Your task to perform on an android device: Show me recent news Image 0: 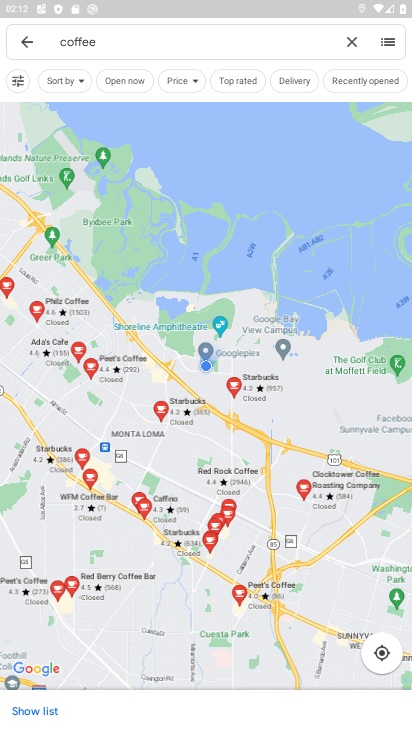
Step 0: press home button
Your task to perform on an android device: Show me recent news Image 1: 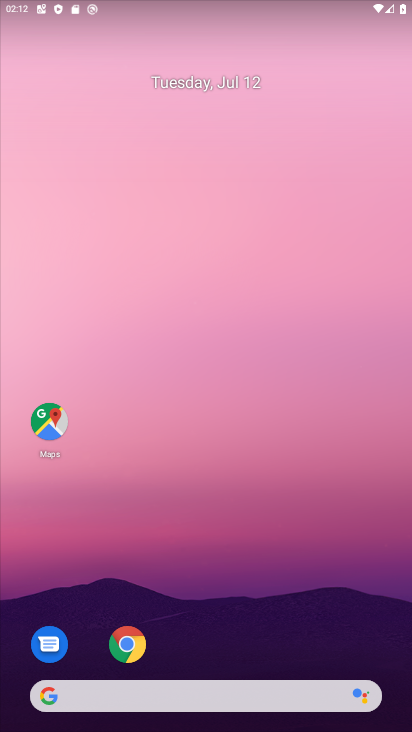
Step 1: task complete